Your task to perform on an android device: Open accessibility settings Image 0: 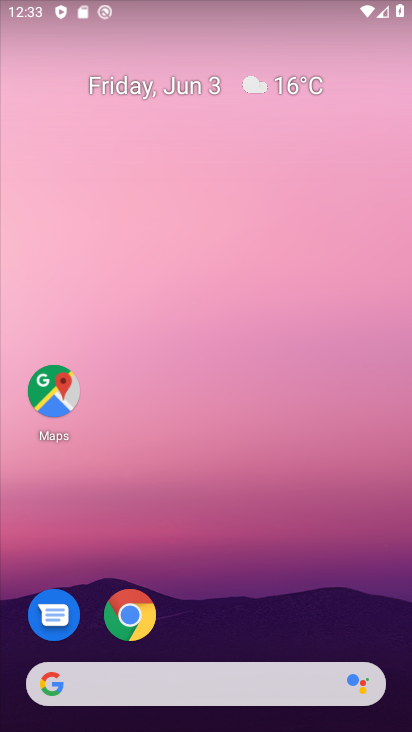
Step 0: drag from (246, 558) to (217, 201)
Your task to perform on an android device: Open accessibility settings Image 1: 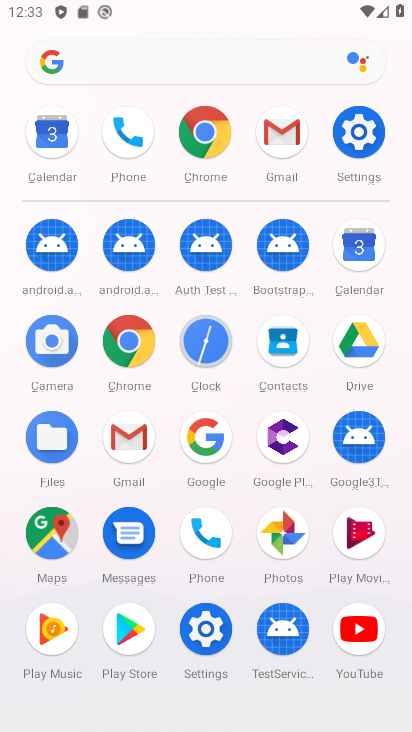
Step 1: click (381, 127)
Your task to perform on an android device: Open accessibility settings Image 2: 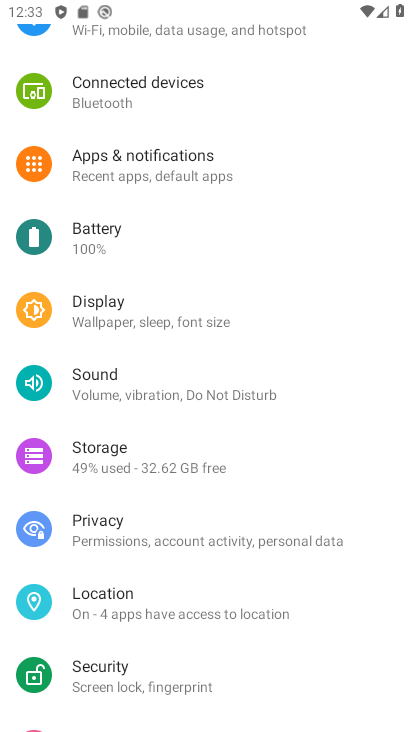
Step 2: drag from (187, 596) to (205, 281)
Your task to perform on an android device: Open accessibility settings Image 3: 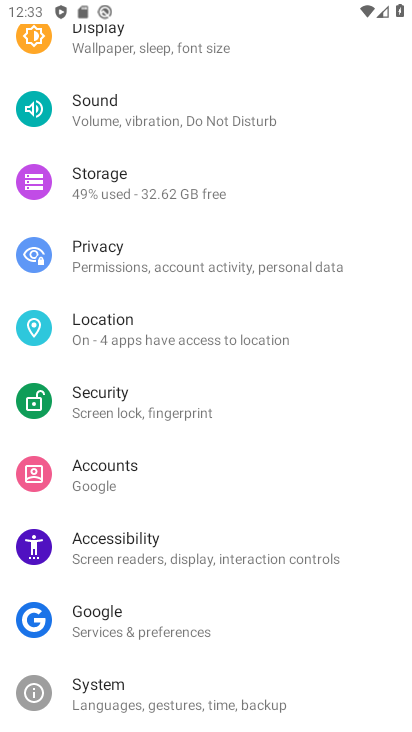
Step 3: click (184, 540)
Your task to perform on an android device: Open accessibility settings Image 4: 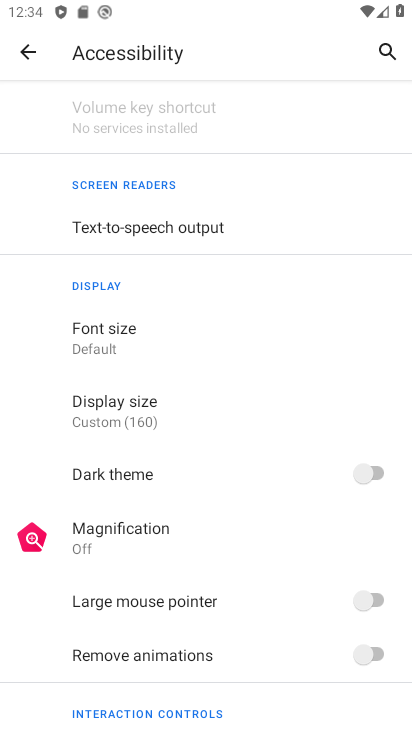
Step 4: task complete